Your task to perform on an android device: turn on showing notifications on the lock screen Image 0: 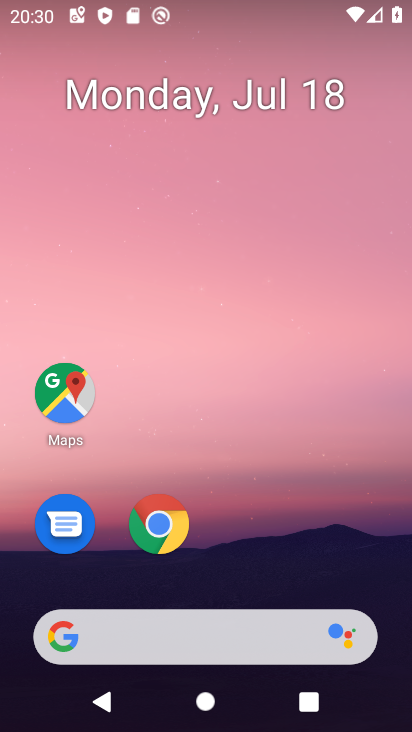
Step 0: drag from (286, 509) to (273, 20)
Your task to perform on an android device: turn on showing notifications on the lock screen Image 1: 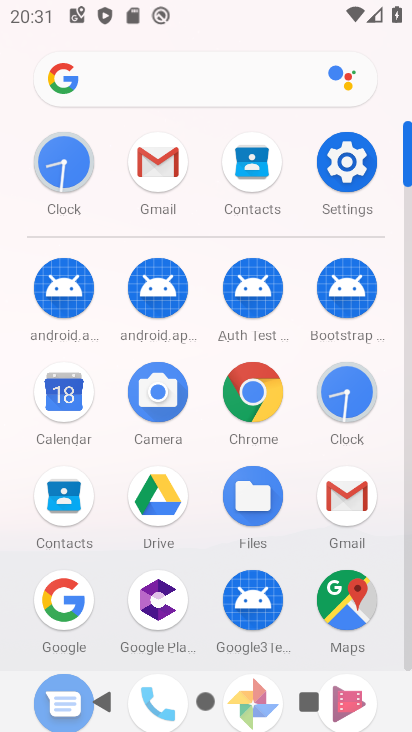
Step 1: click (337, 156)
Your task to perform on an android device: turn on showing notifications on the lock screen Image 2: 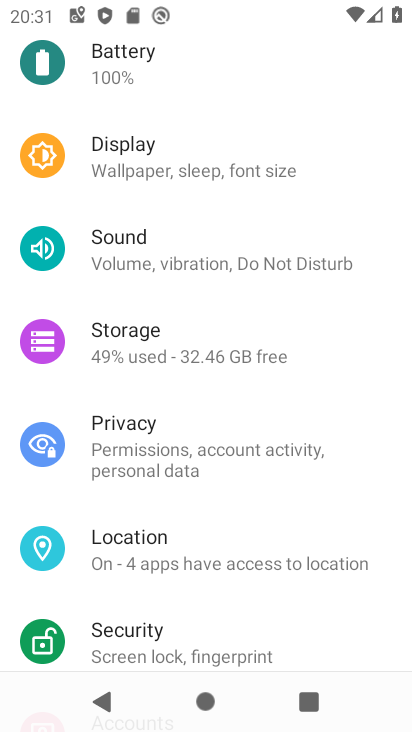
Step 2: drag from (217, 119) to (227, 531)
Your task to perform on an android device: turn on showing notifications on the lock screen Image 3: 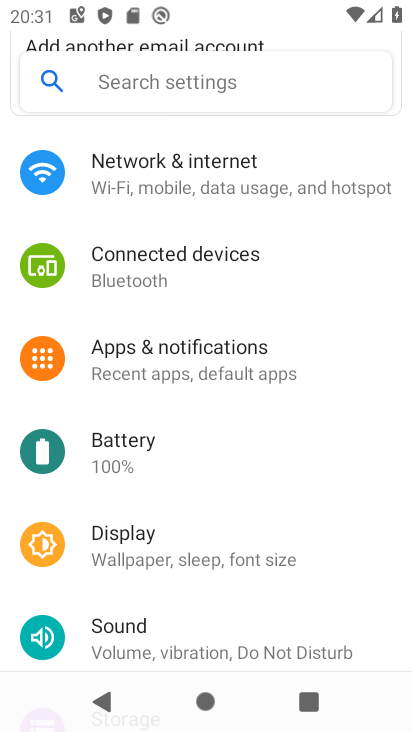
Step 3: click (234, 360)
Your task to perform on an android device: turn on showing notifications on the lock screen Image 4: 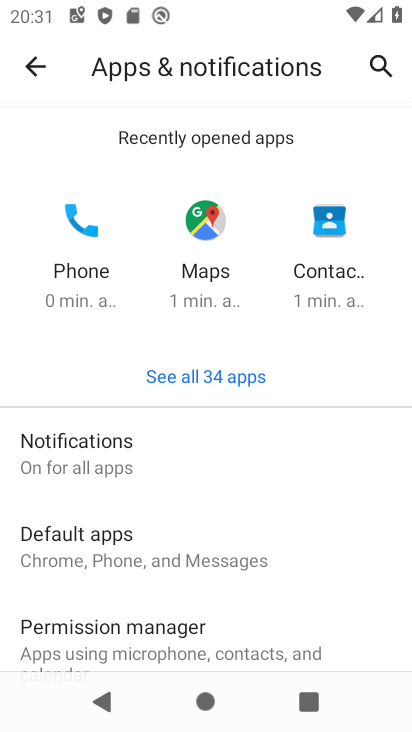
Step 4: click (112, 447)
Your task to perform on an android device: turn on showing notifications on the lock screen Image 5: 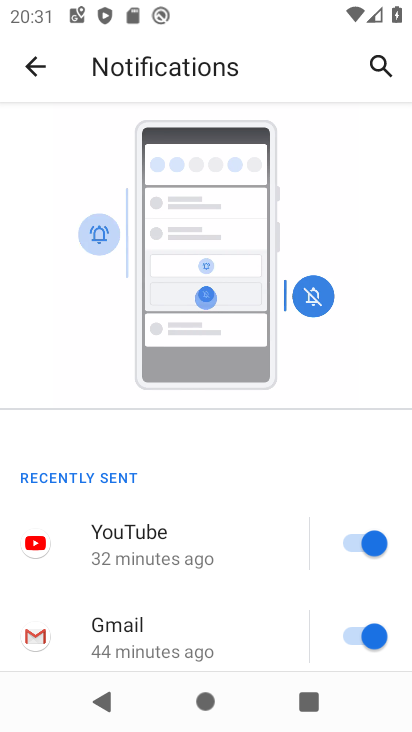
Step 5: drag from (158, 631) to (237, 143)
Your task to perform on an android device: turn on showing notifications on the lock screen Image 6: 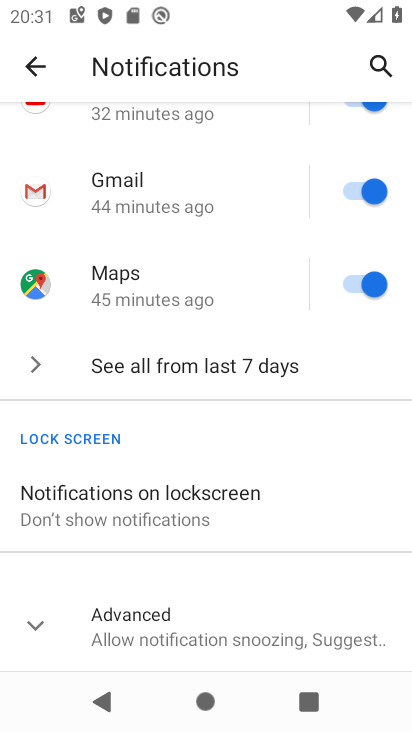
Step 6: click (188, 506)
Your task to perform on an android device: turn on showing notifications on the lock screen Image 7: 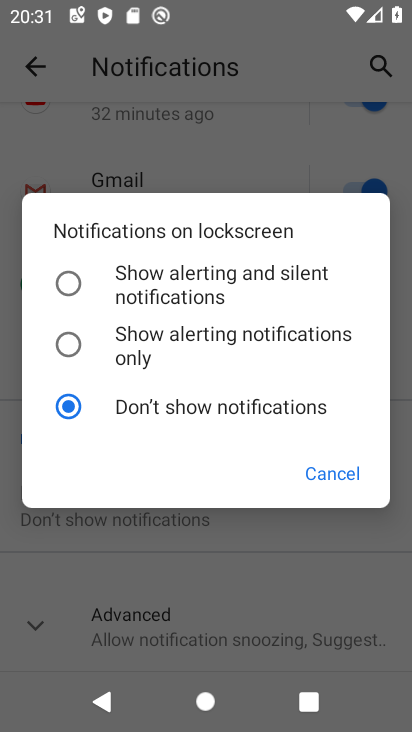
Step 7: click (64, 279)
Your task to perform on an android device: turn on showing notifications on the lock screen Image 8: 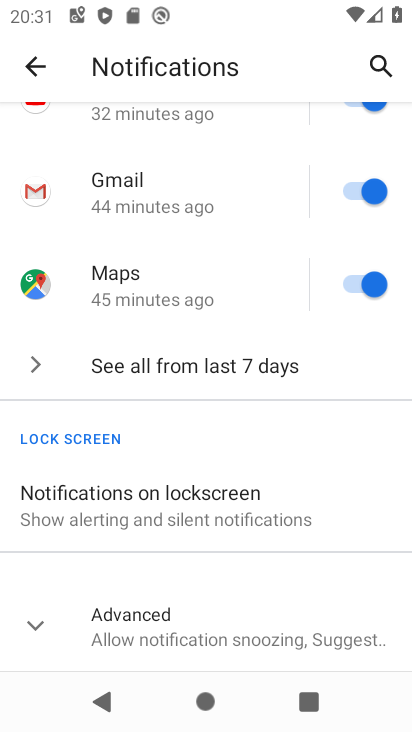
Step 8: task complete